Your task to perform on an android device: find photos in the google photos app Image 0: 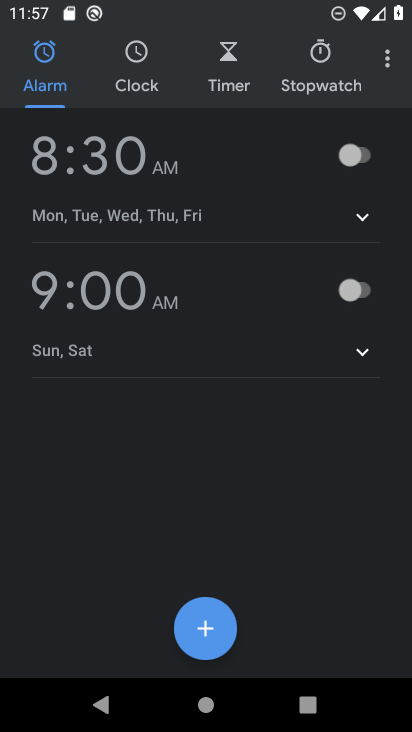
Step 0: press home button
Your task to perform on an android device: find photos in the google photos app Image 1: 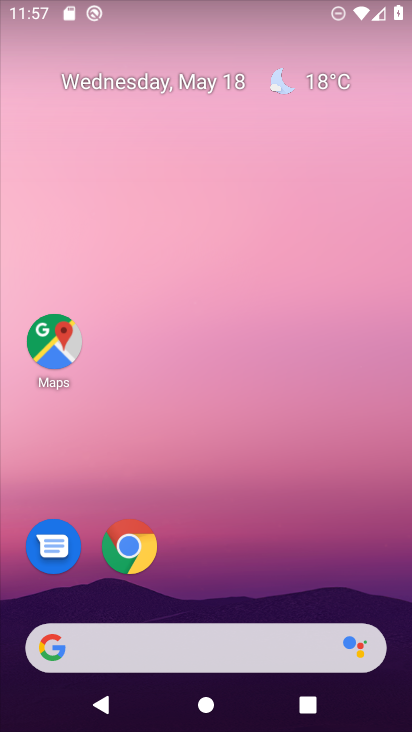
Step 1: drag from (231, 723) to (235, 93)
Your task to perform on an android device: find photos in the google photos app Image 2: 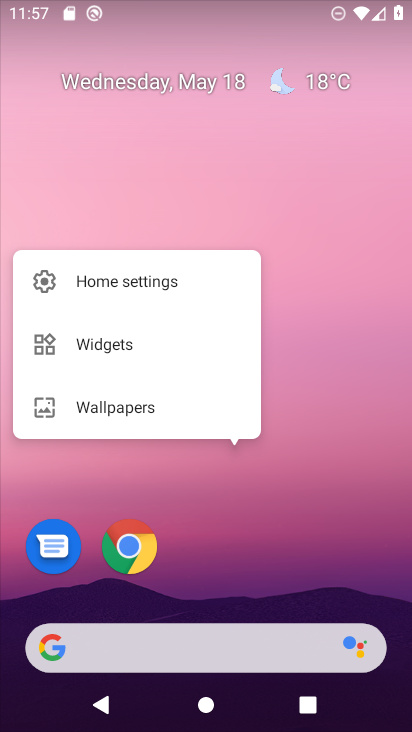
Step 2: click (284, 233)
Your task to perform on an android device: find photos in the google photos app Image 3: 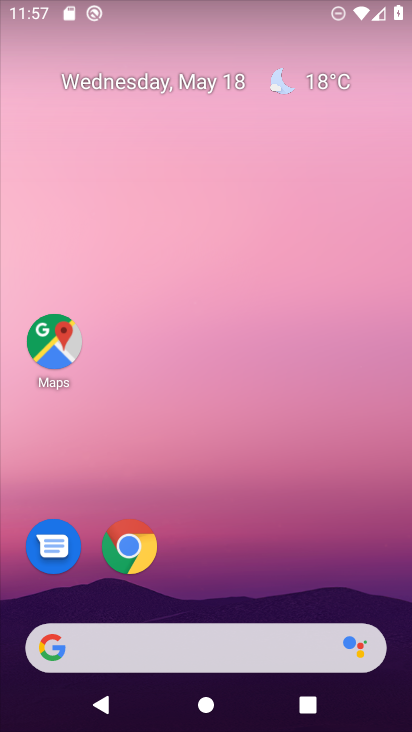
Step 3: drag from (223, 726) to (245, 139)
Your task to perform on an android device: find photos in the google photos app Image 4: 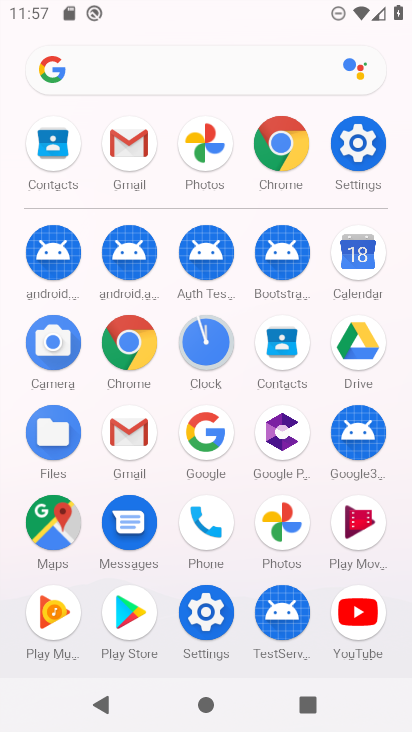
Step 4: click (293, 521)
Your task to perform on an android device: find photos in the google photos app Image 5: 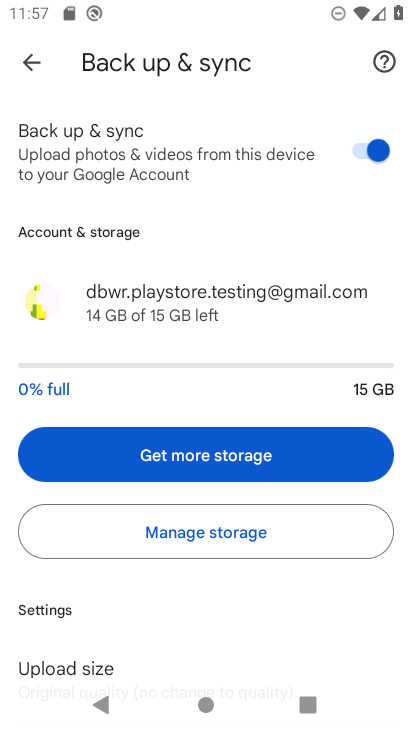
Step 5: click (35, 68)
Your task to perform on an android device: find photos in the google photos app Image 6: 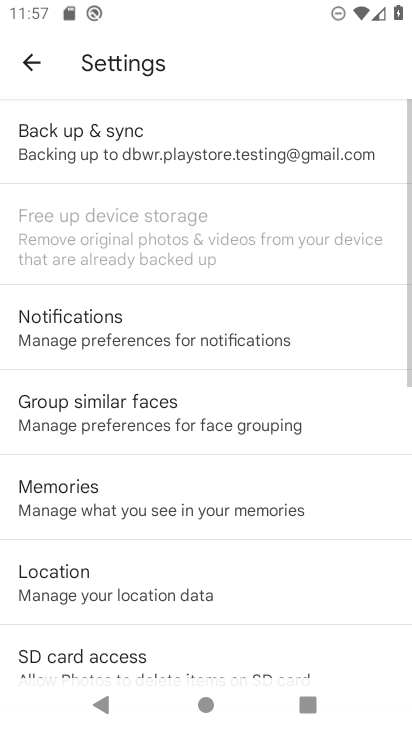
Step 6: click (35, 60)
Your task to perform on an android device: find photos in the google photos app Image 7: 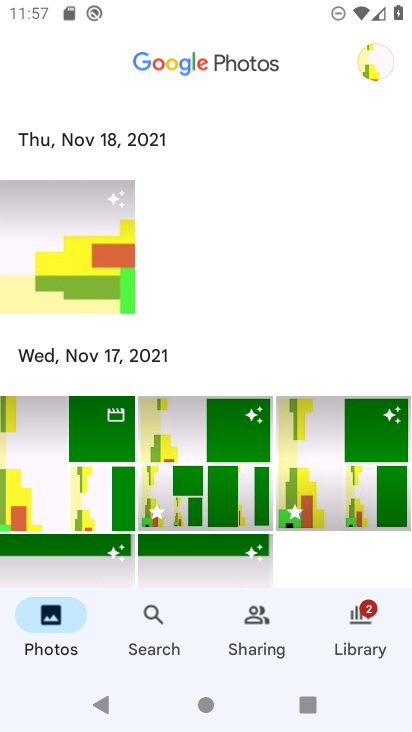
Step 7: click (84, 258)
Your task to perform on an android device: find photos in the google photos app Image 8: 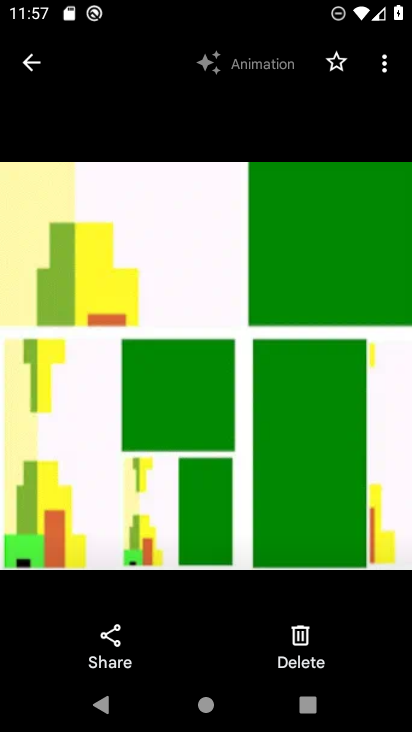
Step 8: task complete